Your task to perform on an android device: Search for nike dri-fit shirts on Nike Image 0: 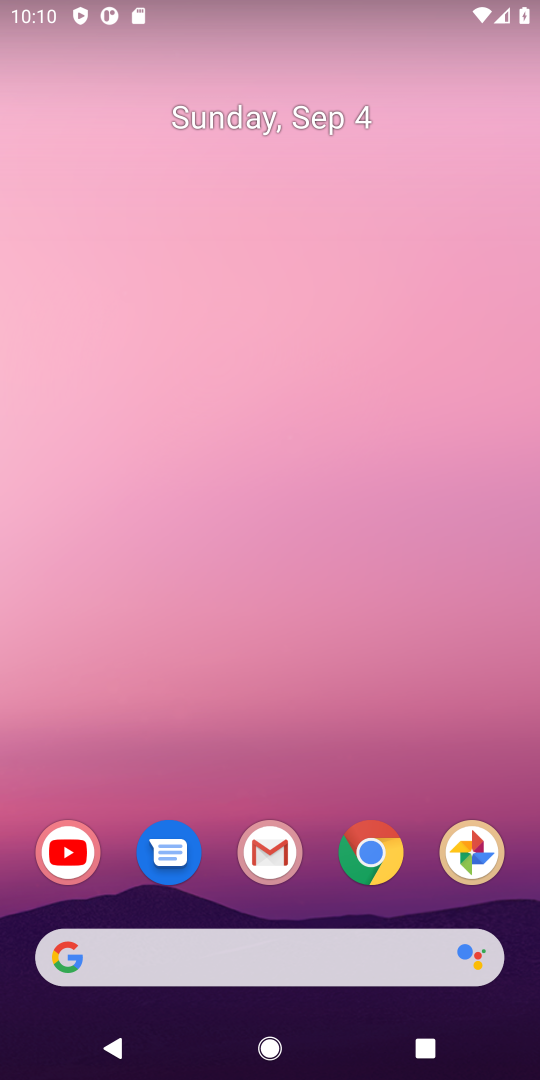
Step 0: drag from (433, 893) to (292, 33)
Your task to perform on an android device: Search for nike dri-fit shirts on Nike Image 1: 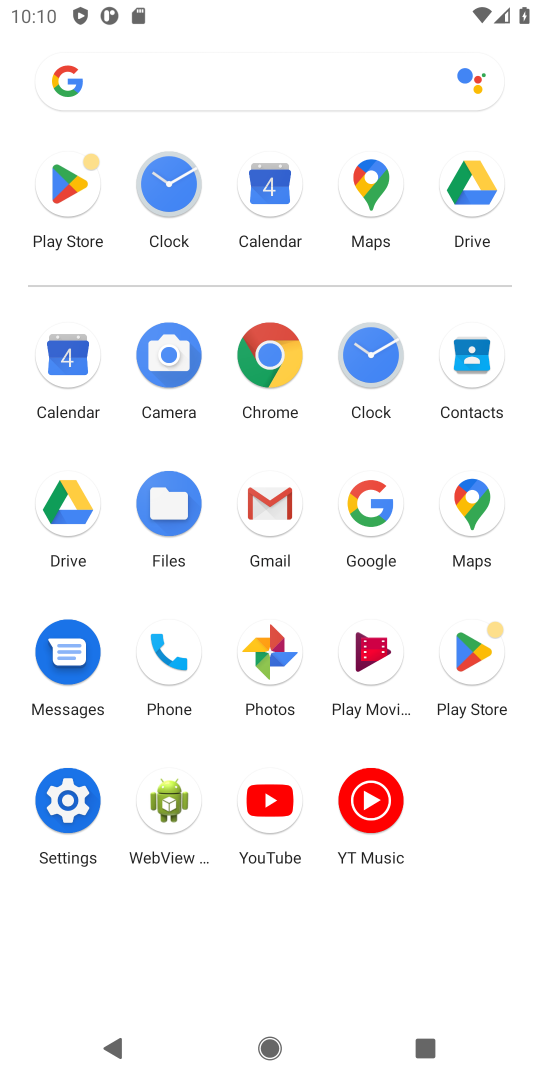
Step 1: click (360, 512)
Your task to perform on an android device: Search for nike dri-fit shirts on Nike Image 2: 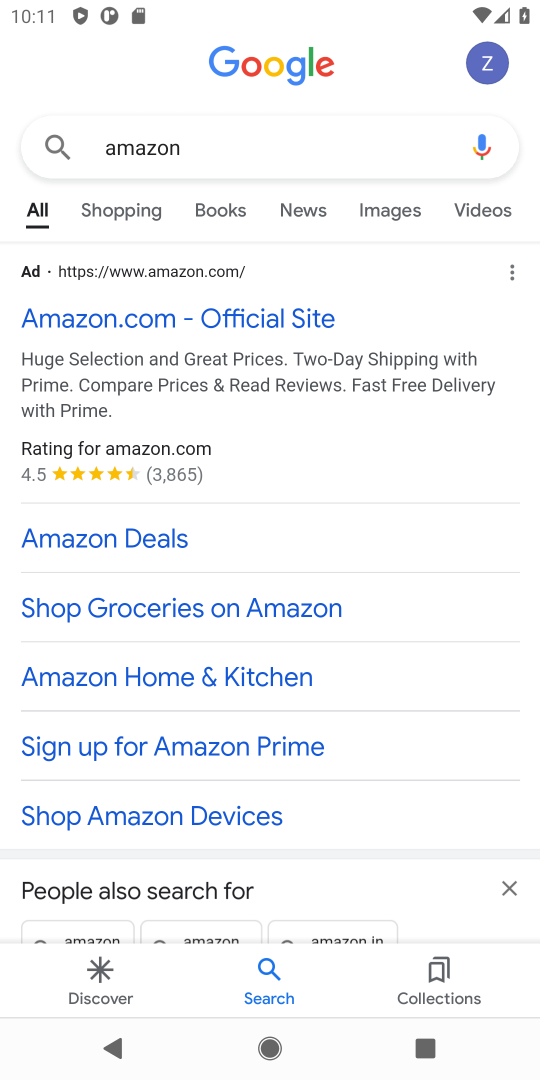
Step 2: press back button
Your task to perform on an android device: Search for nike dri-fit shirts on Nike Image 3: 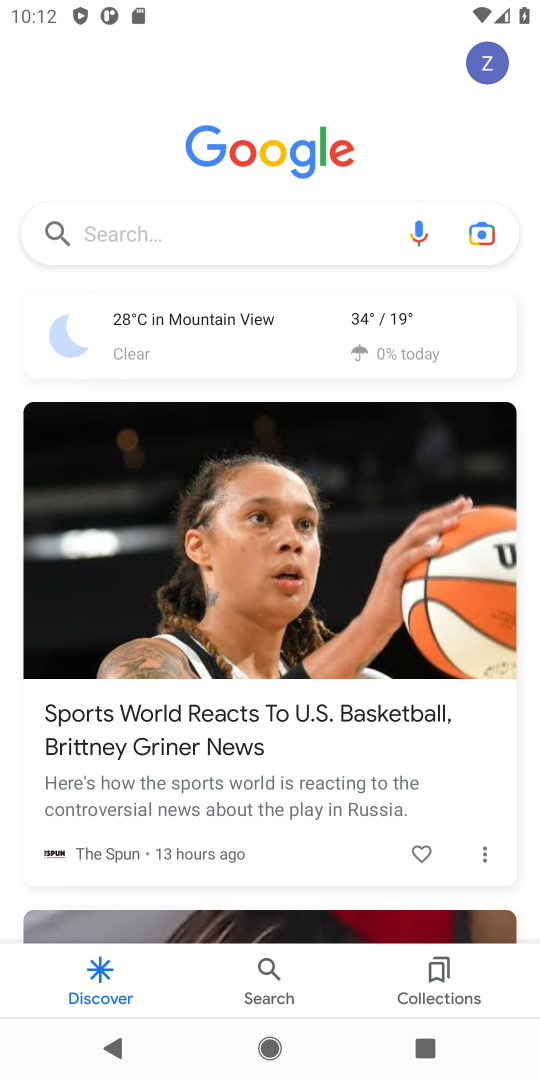
Step 3: click (180, 239)
Your task to perform on an android device: Search for nike dri-fit shirts on Nike Image 4: 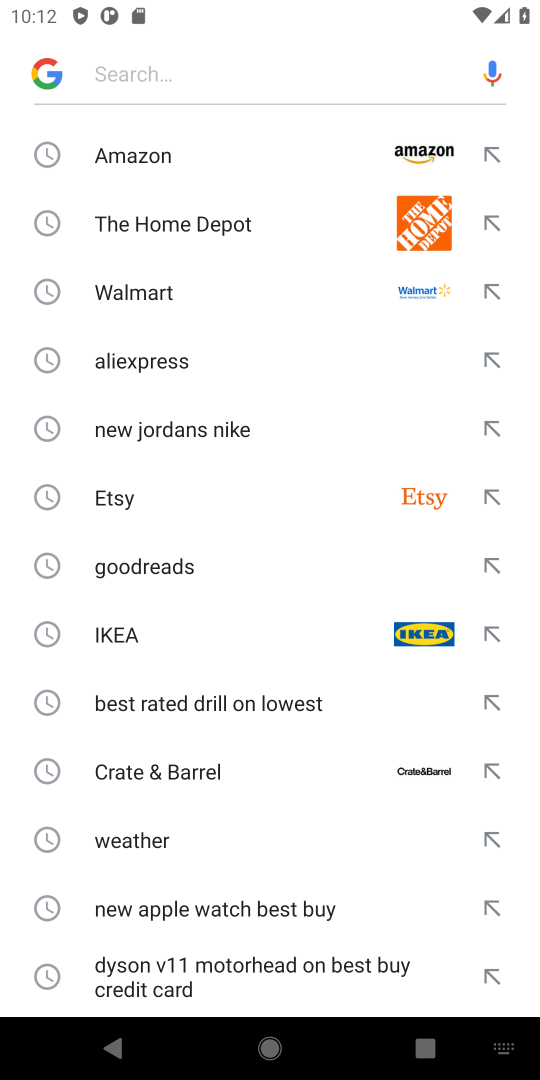
Step 4: type "nike dri-fit shirts on Nike"
Your task to perform on an android device: Search for nike dri-fit shirts on Nike Image 5: 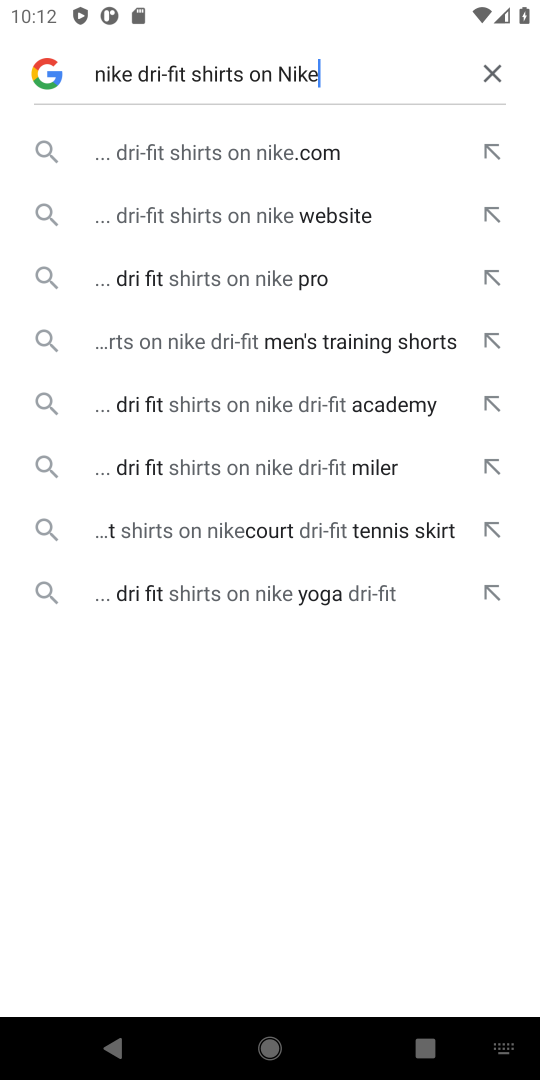
Step 5: click (258, 163)
Your task to perform on an android device: Search for nike dri-fit shirts on Nike Image 6: 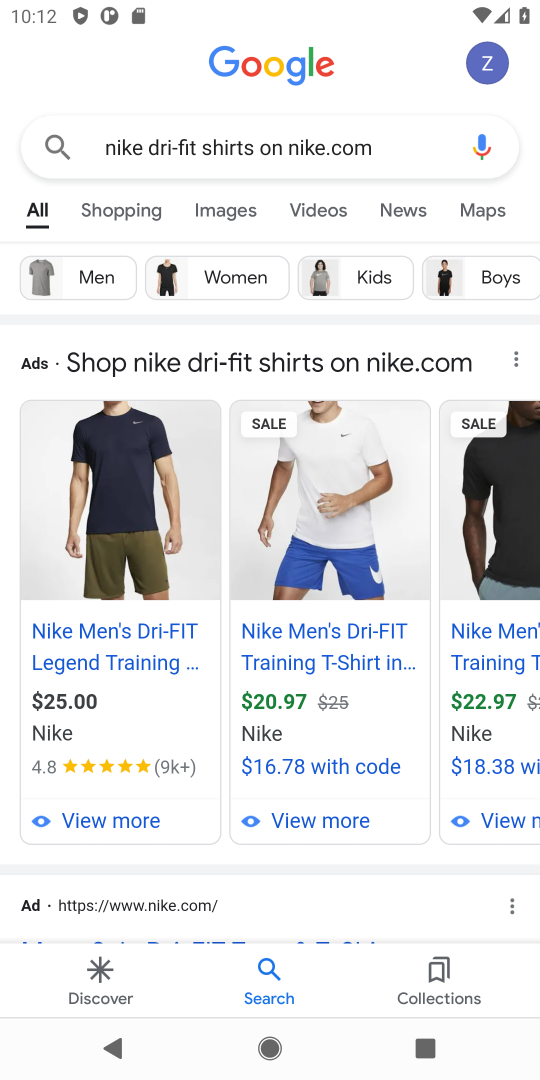
Step 6: task complete